Your task to perform on an android device: find photos in the google photos app Image 0: 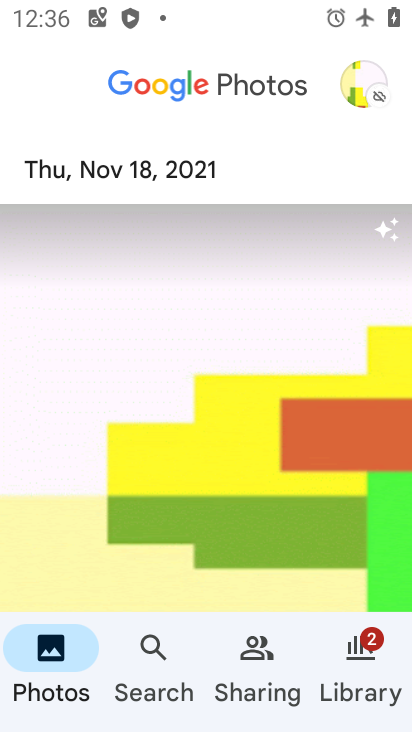
Step 0: press home button
Your task to perform on an android device: find photos in the google photos app Image 1: 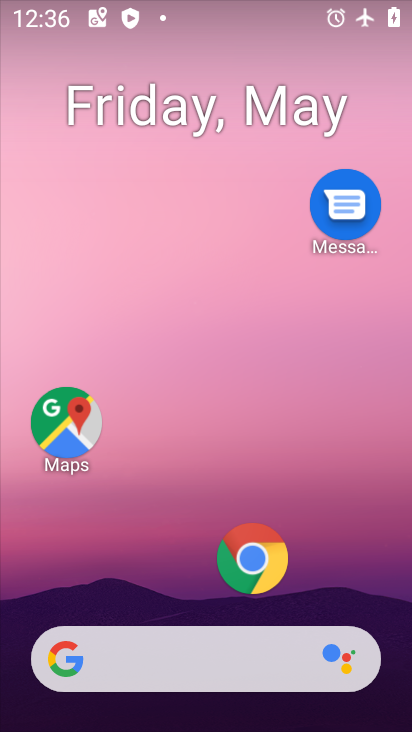
Step 1: drag from (253, 641) to (270, 155)
Your task to perform on an android device: find photos in the google photos app Image 2: 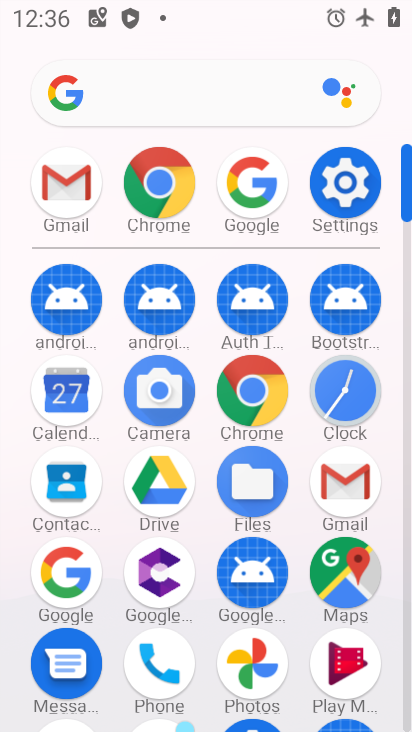
Step 2: drag from (242, 483) to (238, 190)
Your task to perform on an android device: find photos in the google photos app Image 3: 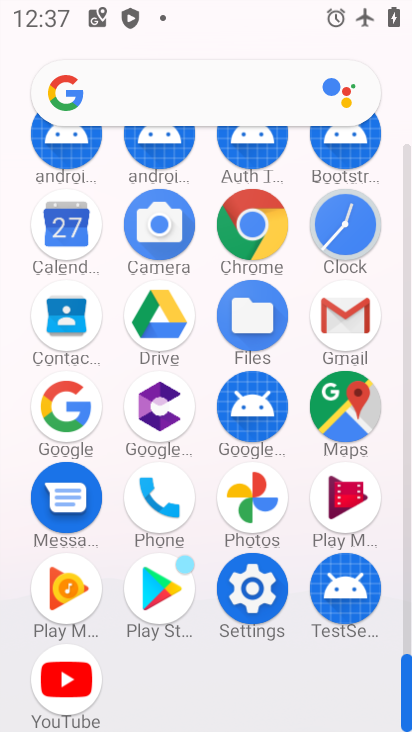
Step 3: click (262, 511)
Your task to perform on an android device: find photos in the google photos app Image 4: 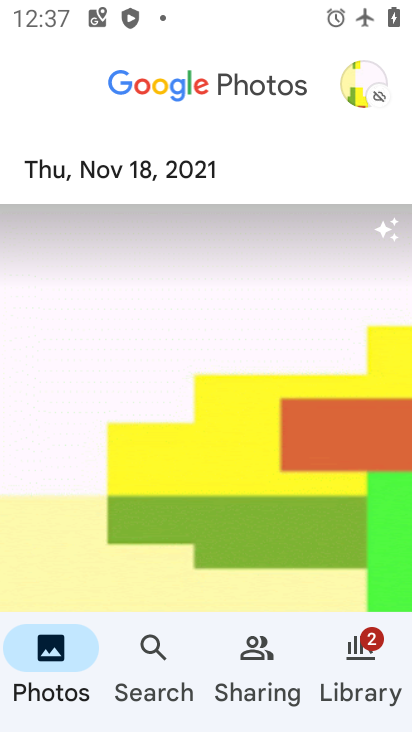
Step 4: task complete